Your task to perform on an android device: turn on wifi Image 0: 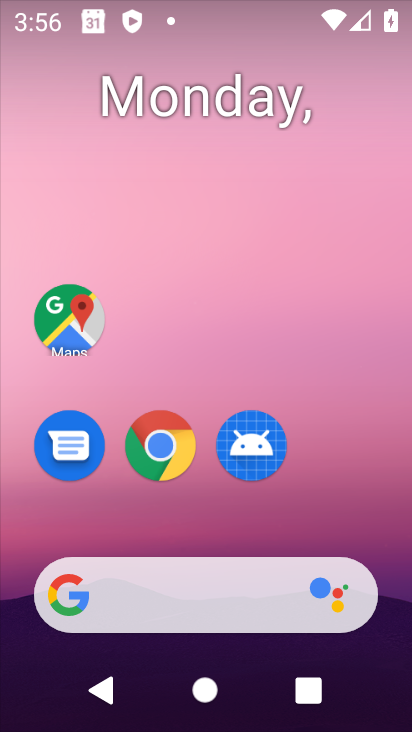
Step 0: drag from (342, 509) to (273, 0)
Your task to perform on an android device: turn on wifi Image 1: 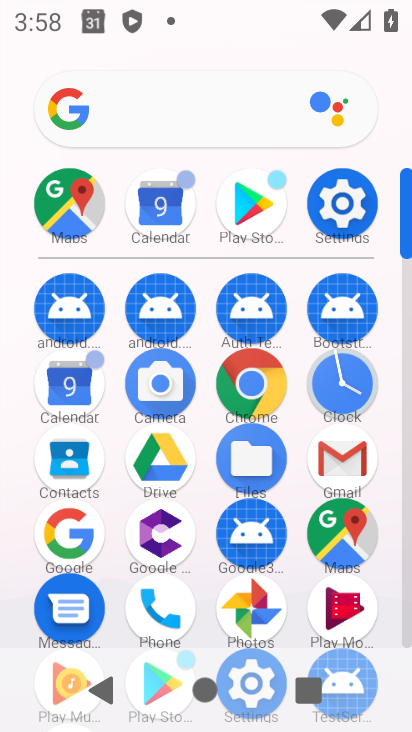
Step 1: task complete